Your task to perform on an android device: search for starred emails in the gmail app Image 0: 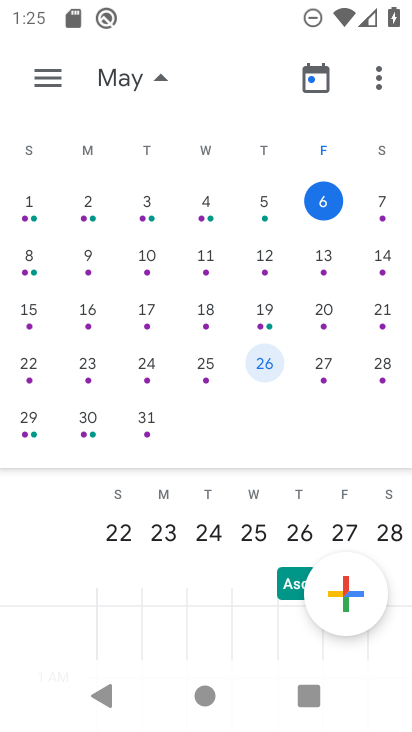
Step 0: press home button
Your task to perform on an android device: search for starred emails in the gmail app Image 1: 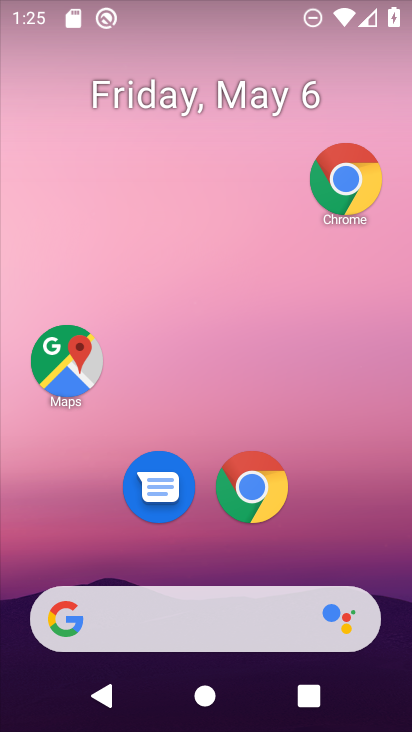
Step 1: drag from (43, 486) to (120, 159)
Your task to perform on an android device: search for starred emails in the gmail app Image 2: 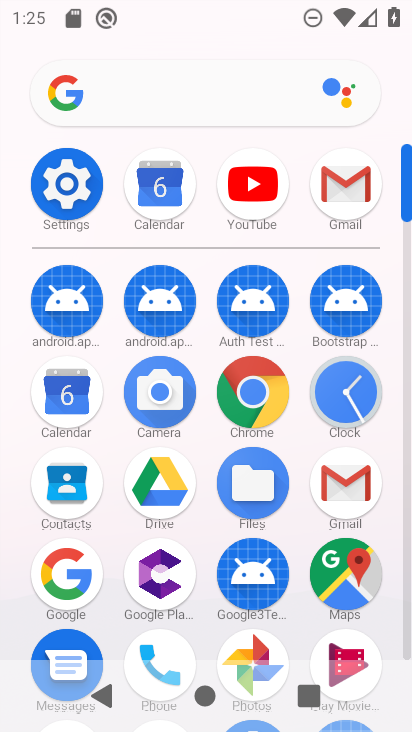
Step 2: click (340, 512)
Your task to perform on an android device: search for starred emails in the gmail app Image 3: 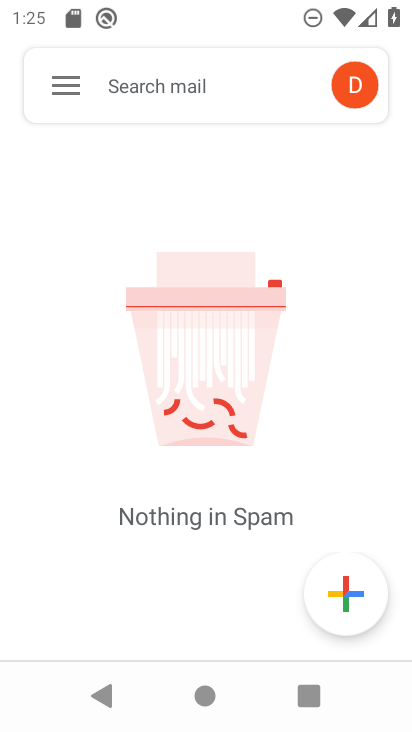
Step 3: click (76, 102)
Your task to perform on an android device: search for starred emails in the gmail app Image 4: 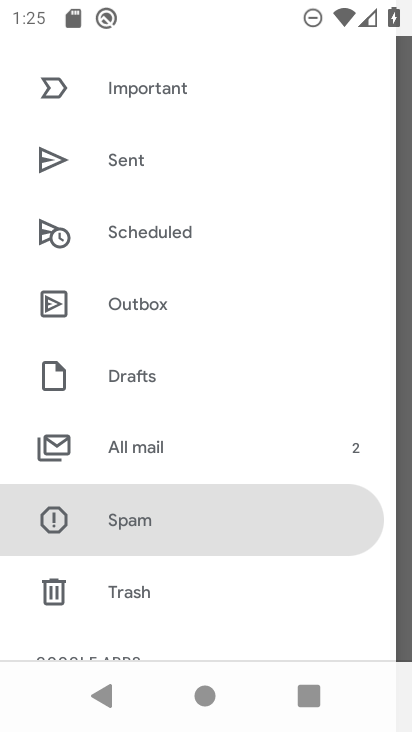
Step 4: drag from (123, 483) to (174, 259)
Your task to perform on an android device: search for starred emails in the gmail app Image 5: 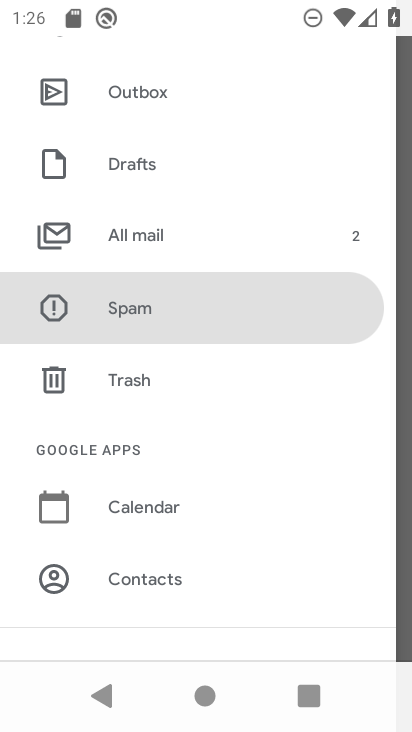
Step 5: drag from (185, 168) to (202, 366)
Your task to perform on an android device: search for starred emails in the gmail app Image 6: 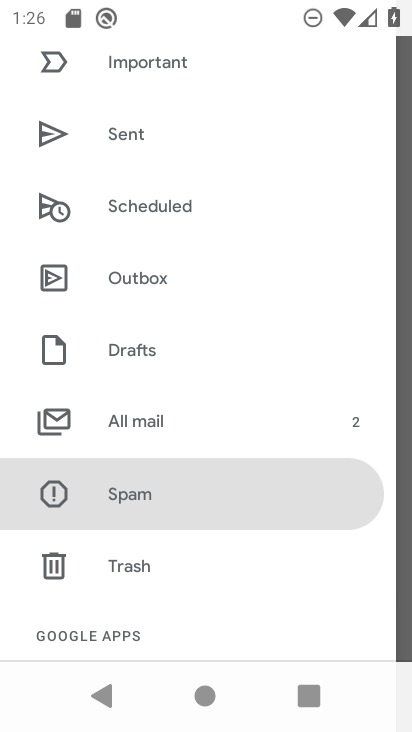
Step 6: drag from (213, 72) to (225, 362)
Your task to perform on an android device: search for starred emails in the gmail app Image 7: 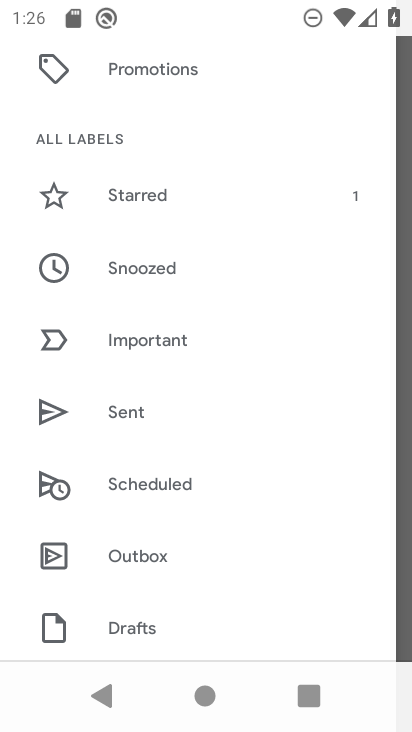
Step 7: click (210, 196)
Your task to perform on an android device: search for starred emails in the gmail app Image 8: 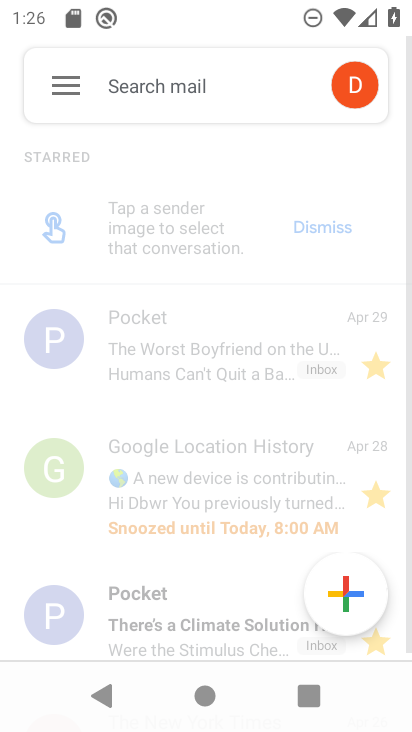
Step 8: task complete